Your task to perform on an android device: What's the weather today? Image 0: 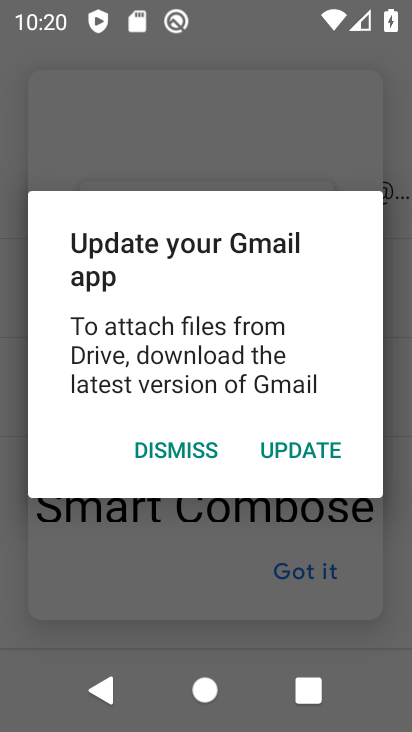
Step 0: press home button
Your task to perform on an android device: What's the weather today? Image 1: 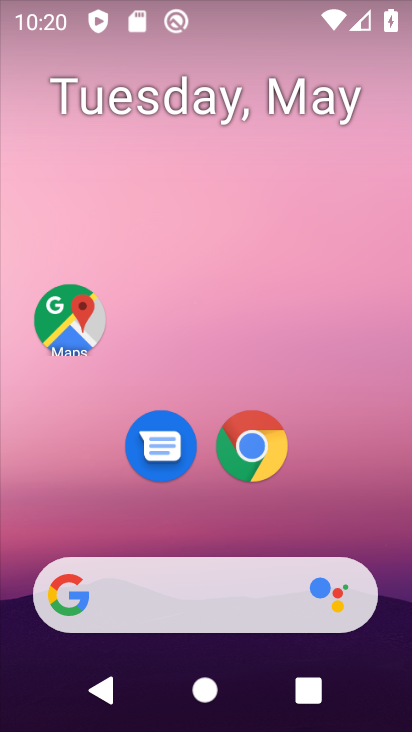
Step 1: drag from (344, 518) to (302, 186)
Your task to perform on an android device: What's the weather today? Image 2: 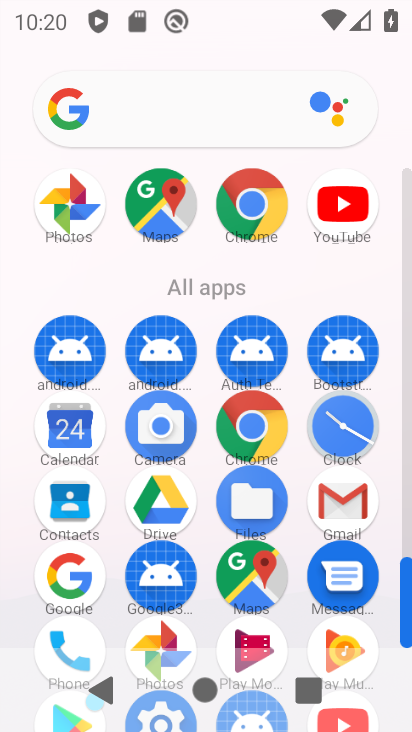
Step 2: click (63, 575)
Your task to perform on an android device: What's the weather today? Image 3: 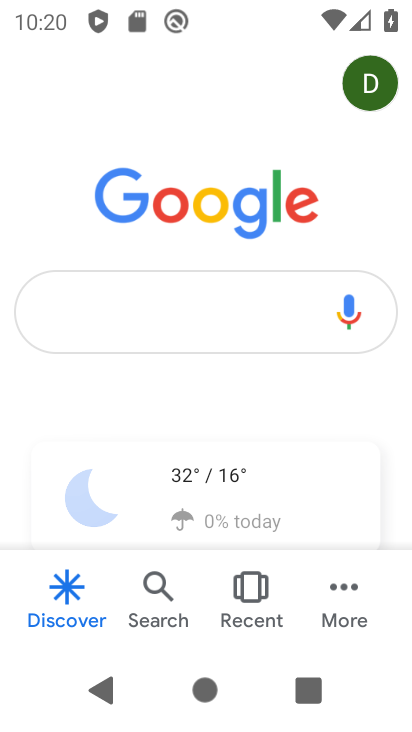
Step 3: click (186, 490)
Your task to perform on an android device: What's the weather today? Image 4: 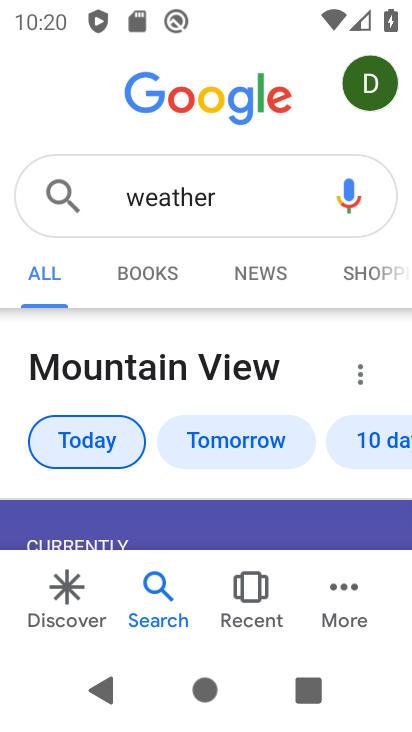
Step 4: task complete